Your task to perform on an android device: What is the news today? Image 0: 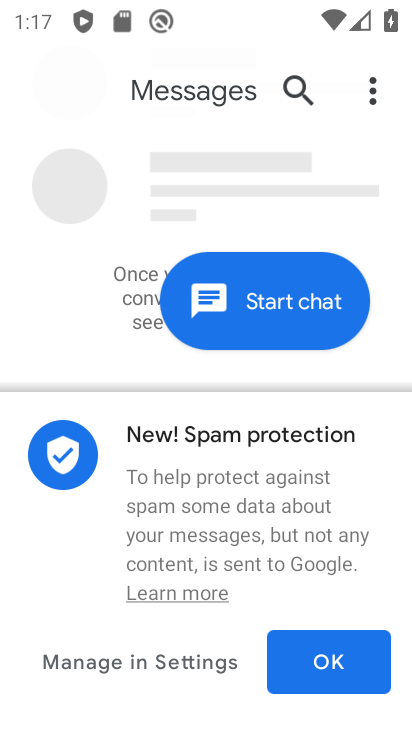
Step 0: press home button
Your task to perform on an android device: What is the news today? Image 1: 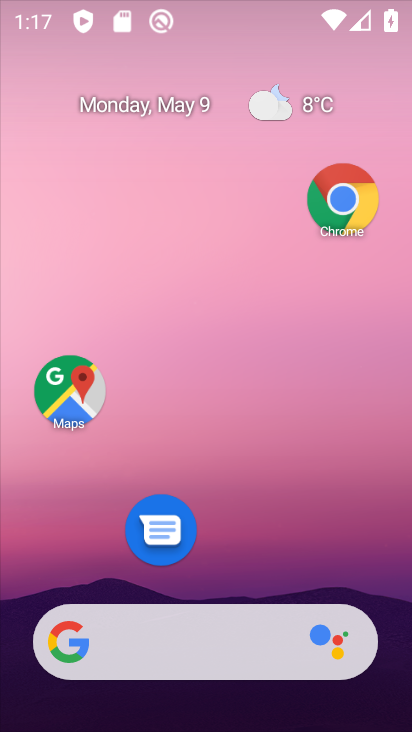
Step 1: drag from (248, 529) to (317, 56)
Your task to perform on an android device: What is the news today? Image 2: 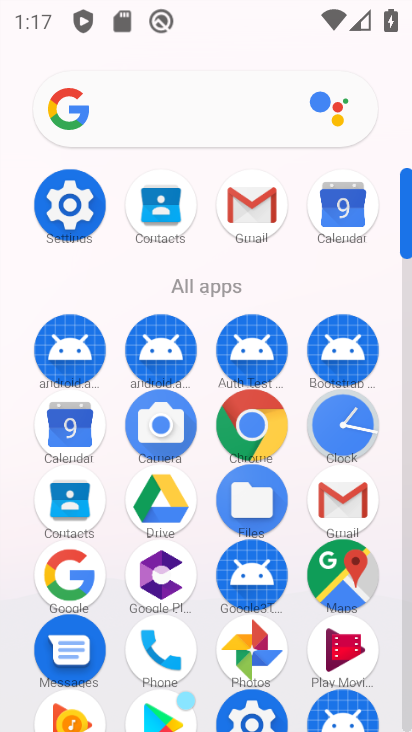
Step 2: click (70, 570)
Your task to perform on an android device: What is the news today? Image 3: 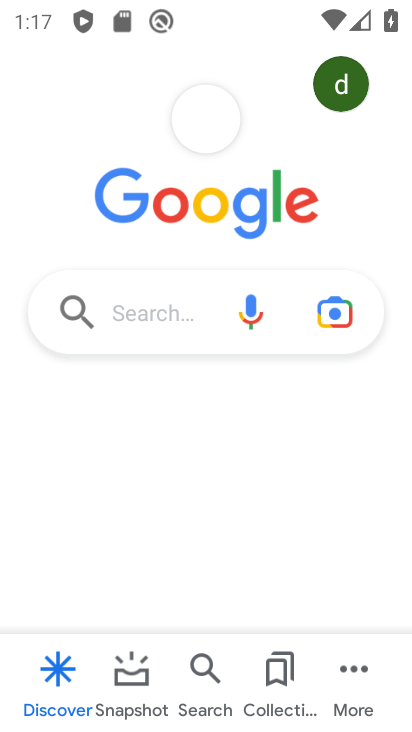
Step 3: click (122, 307)
Your task to perform on an android device: What is the news today? Image 4: 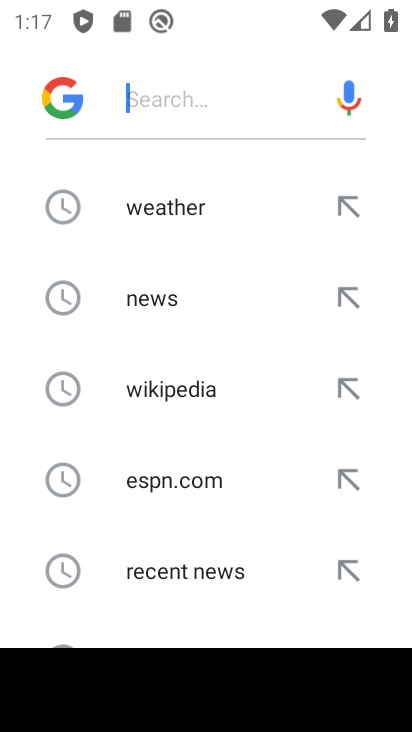
Step 4: type "what is news today"
Your task to perform on an android device: What is the news today? Image 5: 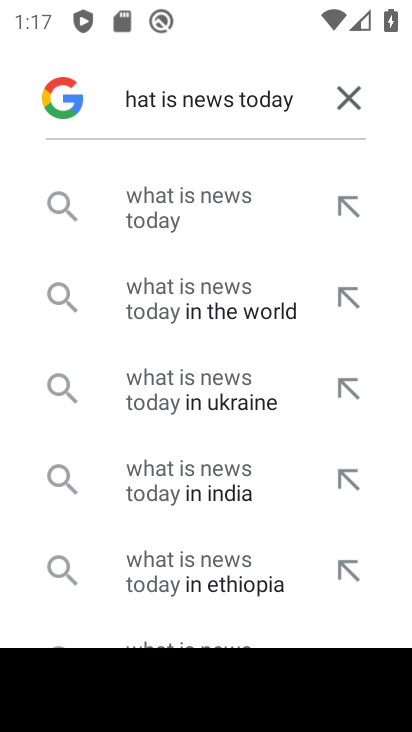
Step 5: click (189, 205)
Your task to perform on an android device: What is the news today? Image 6: 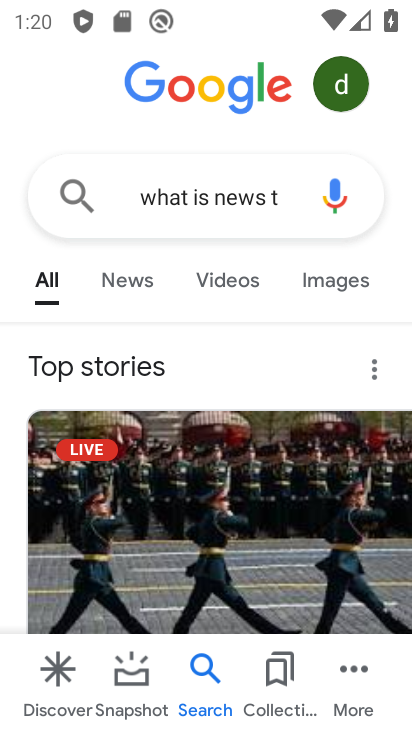
Step 6: task complete